Your task to perform on an android device: change the clock display to digital Image 0: 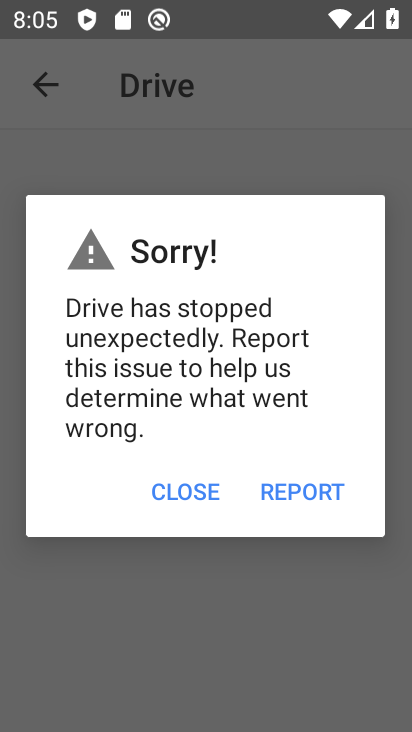
Step 0: press home button
Your task to perform on an android device: change the clock display to digital Image 1: 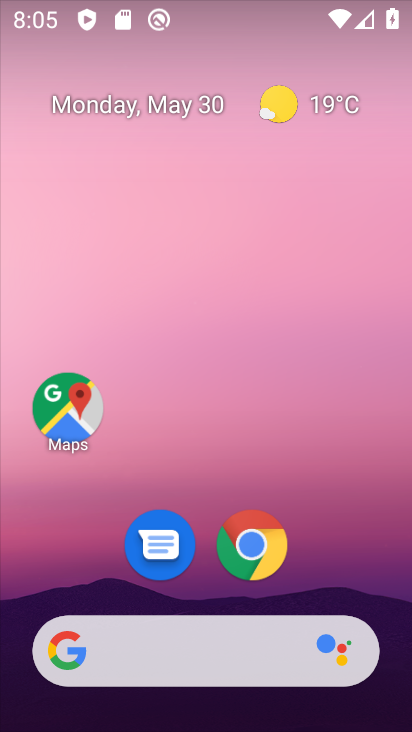
Step 1: drag from (303, 558) to (287, 277)
Your task to perform on an android device: change the clock display to digital Image 2: 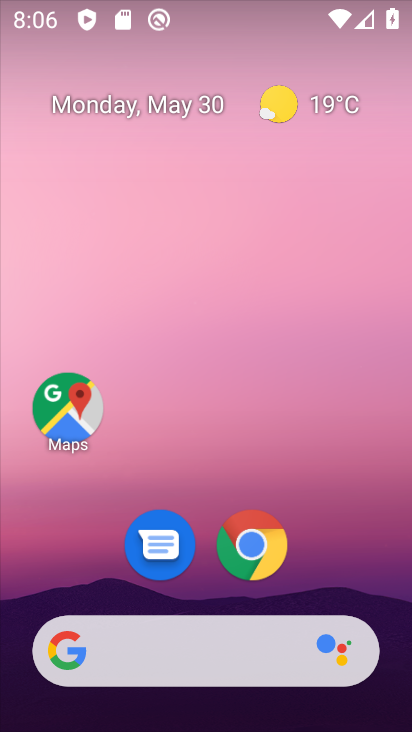
Step 2: drag from (328, 504) to (271, 95)
Your task to perform on an android device: change the clock display to digital Image 3: 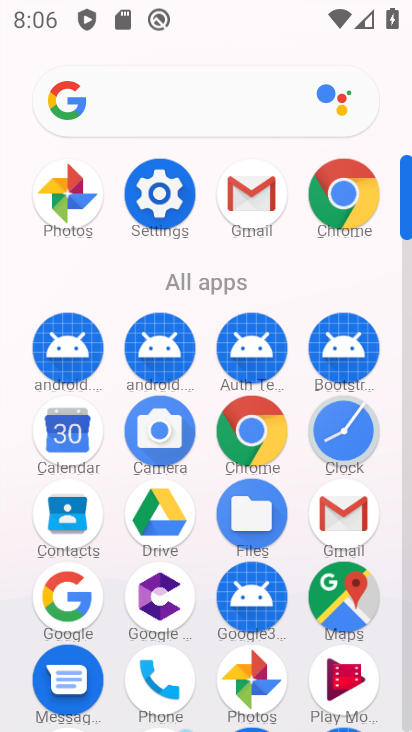
Step 3: click (339, 429)
Your task to perform on an android device: change the clock display to digital Image 4: 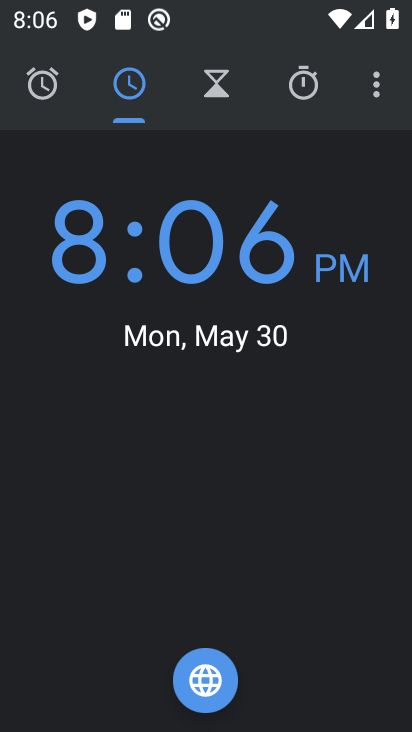
Step 4: click (370, 73)
Your task to perform on an android device: change the clock display to digital Image 5: 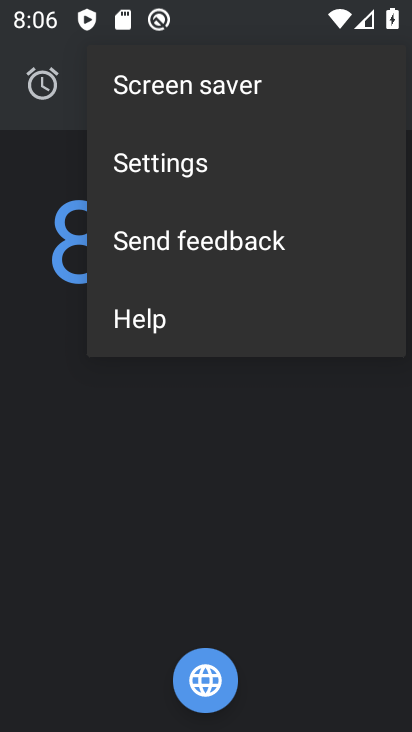
Step 5: click (212, 164)
Your task to perform on an android device: change the clock display to digital Image 6: 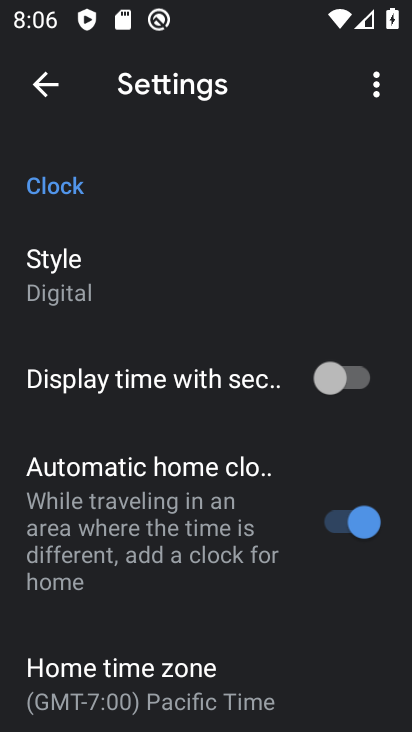
Step 6: click (94, 280)
Your task to perform on an android device: change the clock display to digital Image 7: 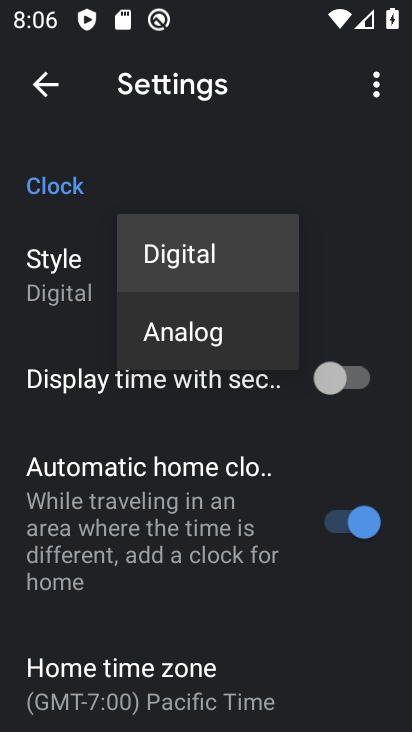
Step 7: click (205, 261)
Your task to perform on an android device: change the clock display to digital Image 8: 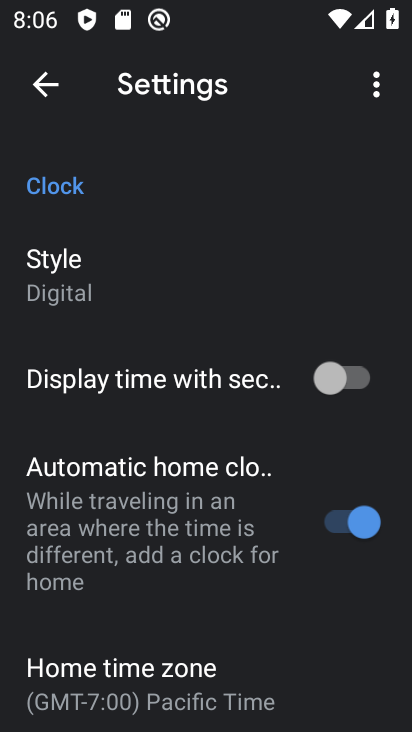
Step 8: task complete